Your task to perform on an android device: choose inbox layout in the gmail app Image 0: 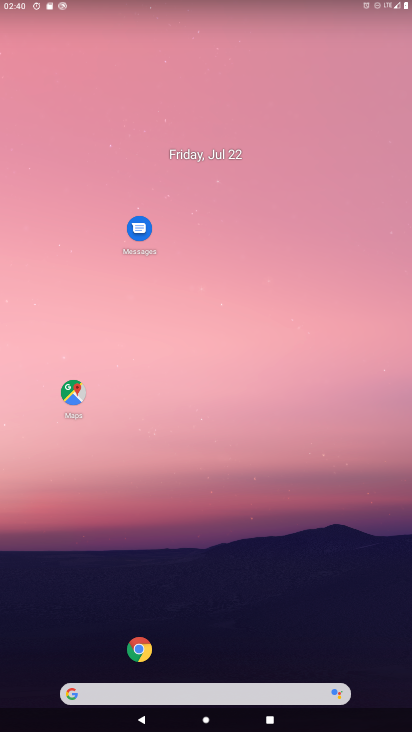
Step 0: drag from (30, 640) to (371, 9)
Your task to perform on an android device: choose inbox layout in the gmail app Image 1: 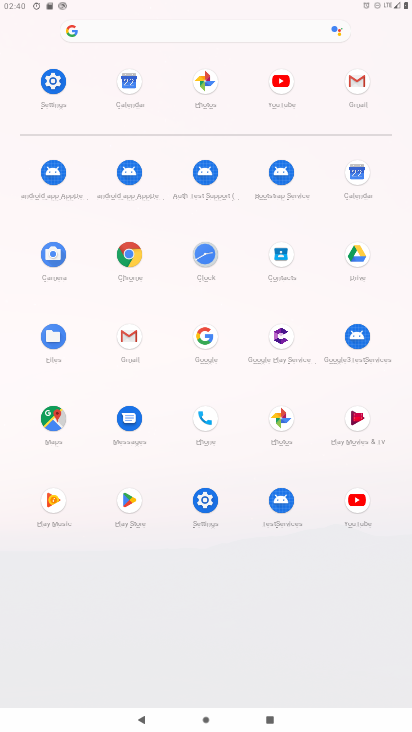
Step 1: click (135, 334)
Your task to perform on an android device: choose inbox layout in the gmail app Image 2: 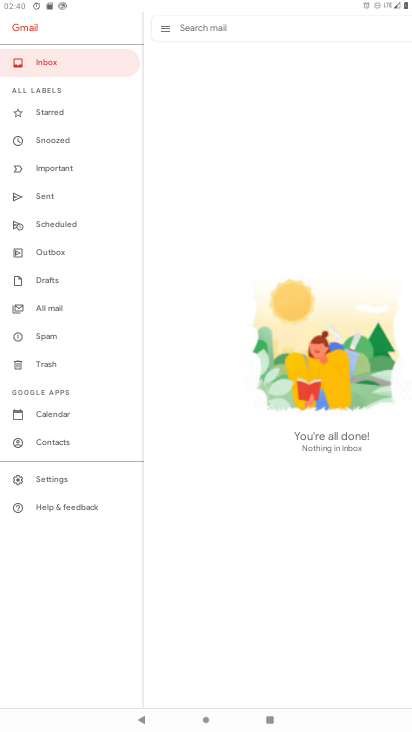
Step 2: click (76, 54)
Your task to perform on an android device: choose inbox layout in the gmail app Image 3: 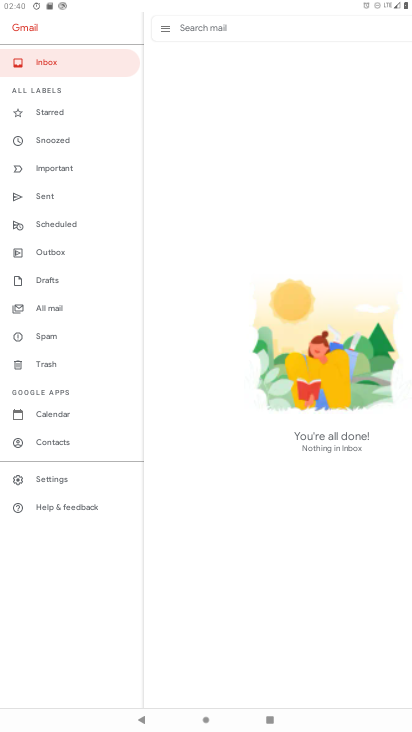
Step 3: click (53, 466)
Your task to perform on an android device: choose inbox layout in the gmail app Image 4: 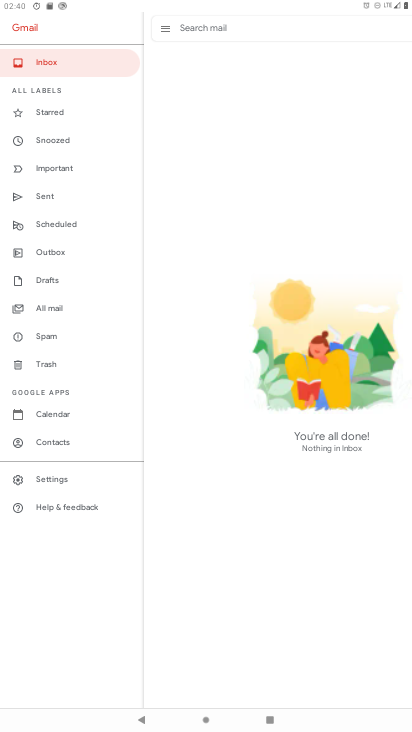
Step 4: click (45, 483)
Your task to perform on an android device: choose inbox layout in the gmail app Image 5: 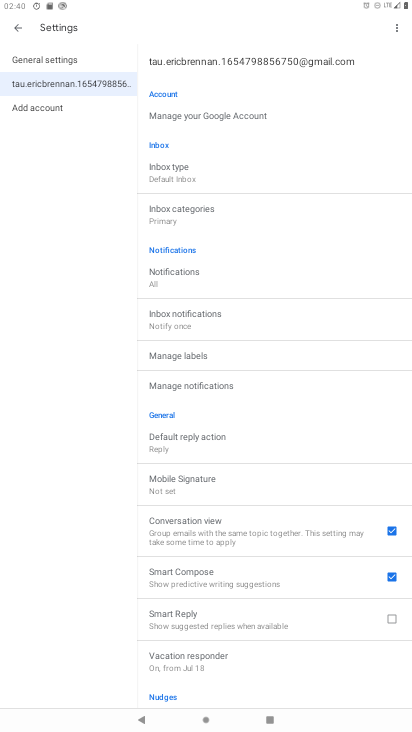
Step 5: task complete